Your task to perform on an android device: install app "Cash App" Image 0: 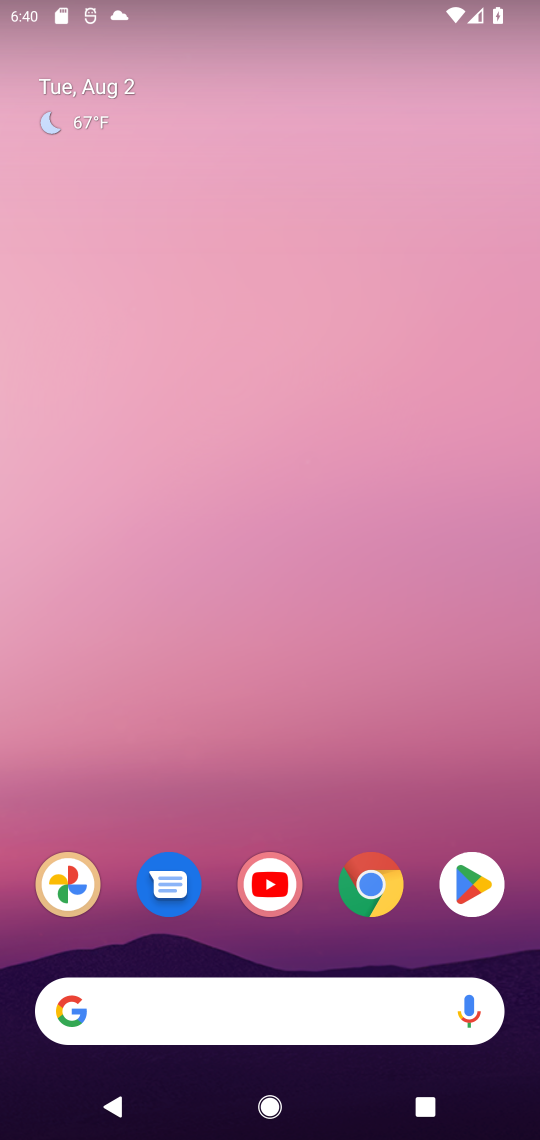
Step 0: press home button
Your task to perform on an android device: install app "Cash App" Image 1: 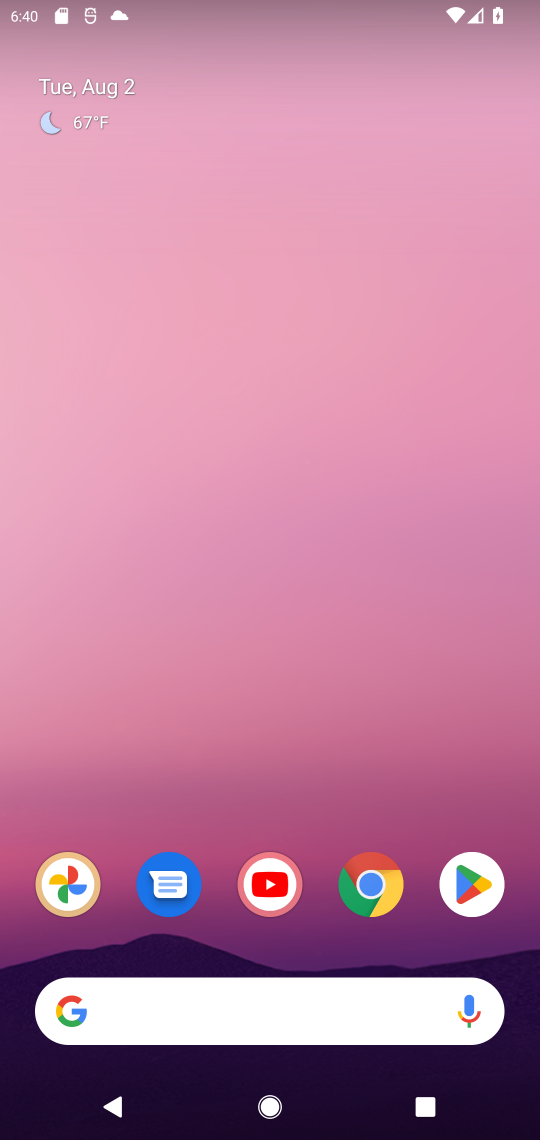
Step 1: click (479, 870)
Your task to perform on an android device: install app "Cash App" Image 2: 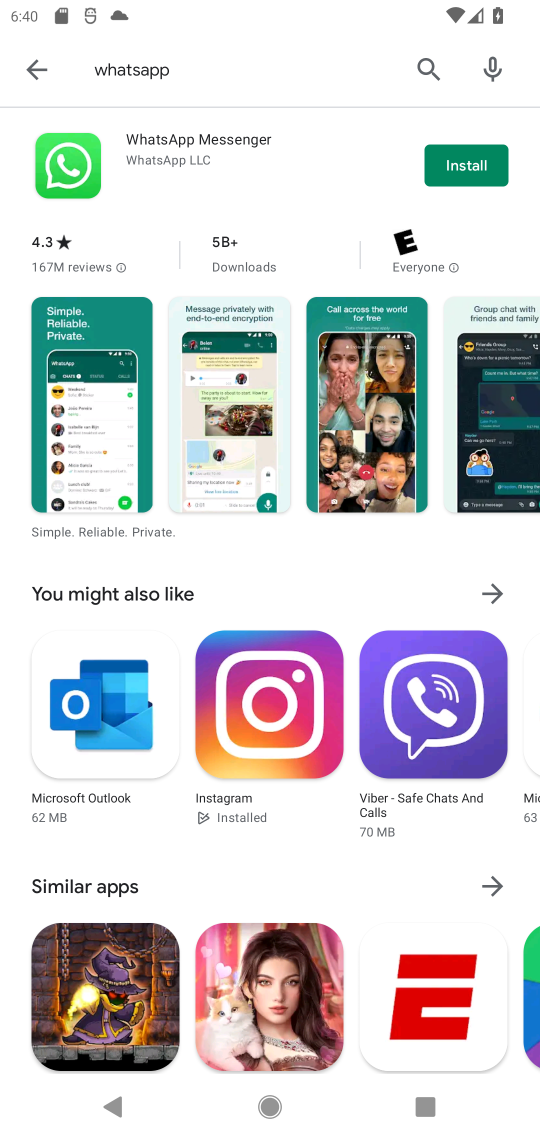
Step 2: click (418, 70)
Your task to perform on an android device: install app "Cash App" Image 3: 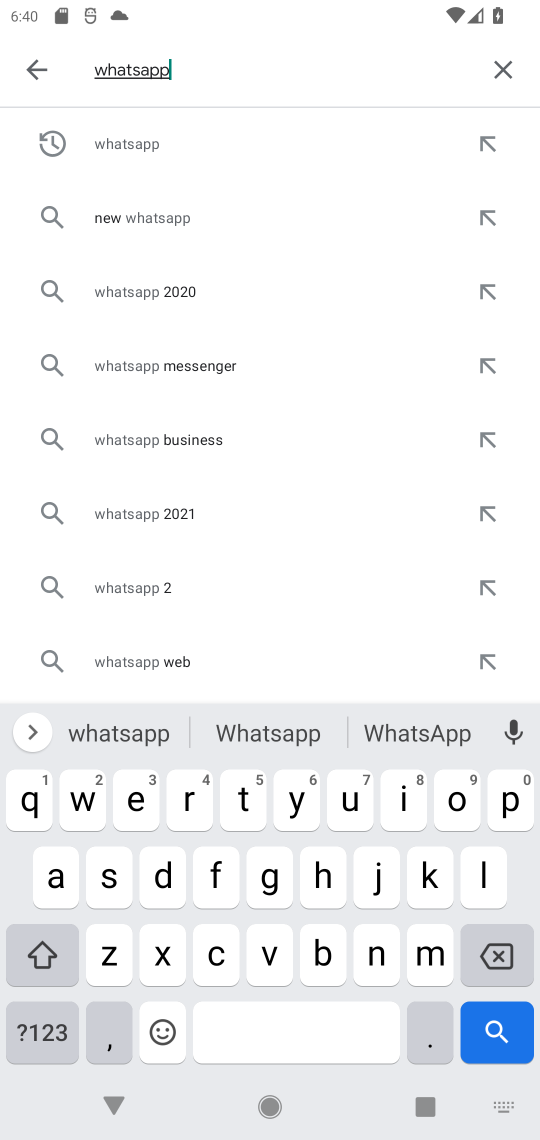
Step 3: click (494, 61)
Your task to perform on an android device: install app "Cash App" Image 4: 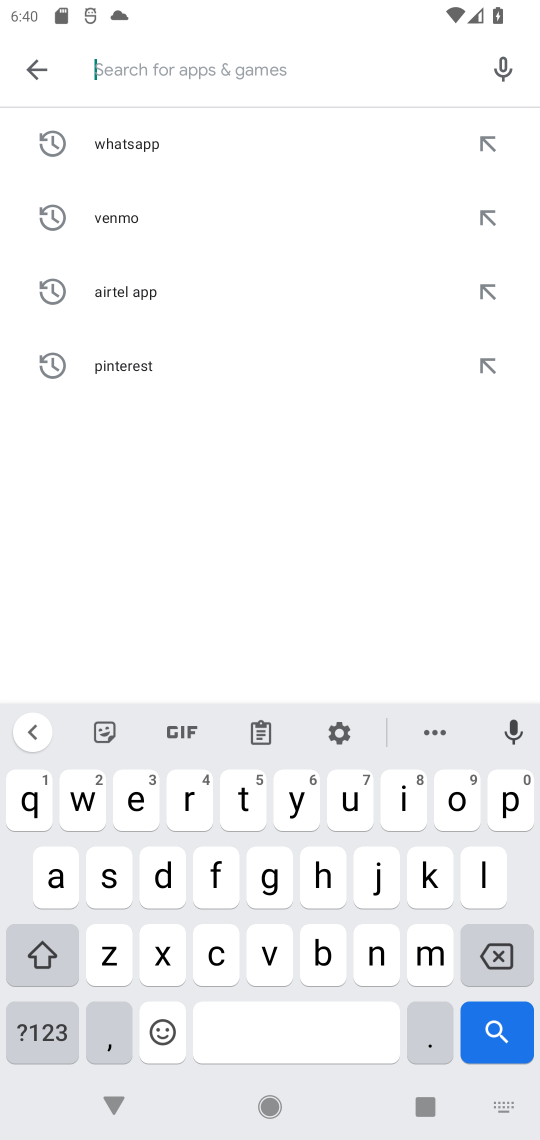
Step 4: click (208, 958)
Your task to perform on an android device: install app "Cash App" Image 5: 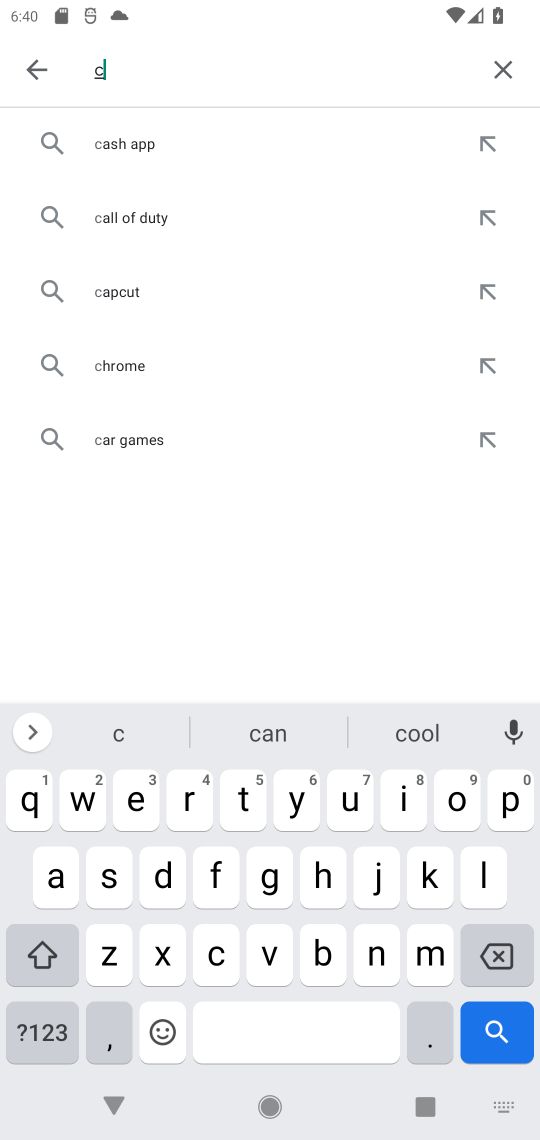
Step 5: click (49, 876)
Your task to perform on an android device: install app "Cash App" Image 6: 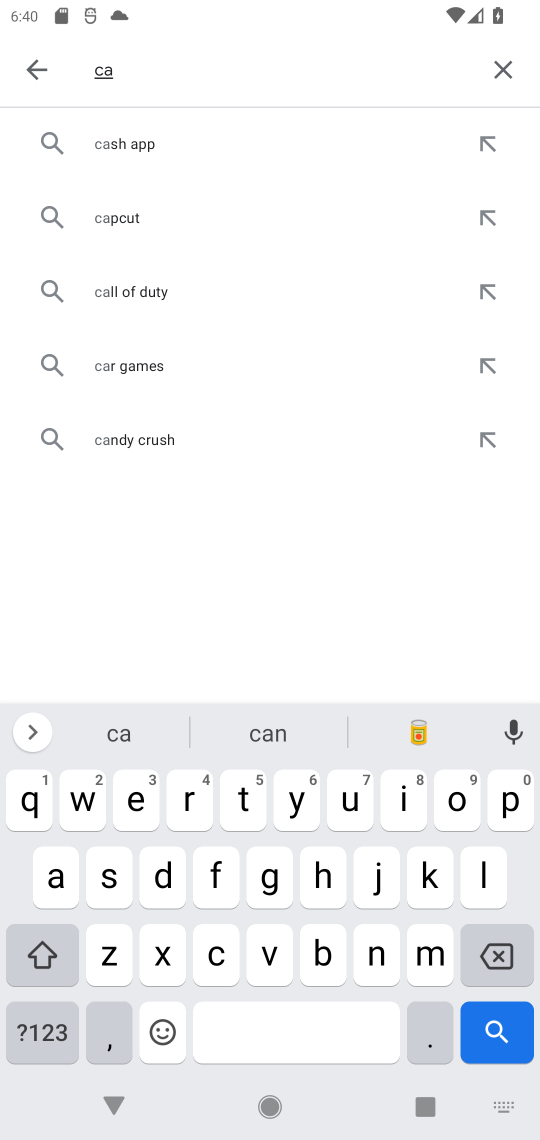
Step 6: click (103, 875)
Your task to perform on an android device: install app "Cash App" Image 7: 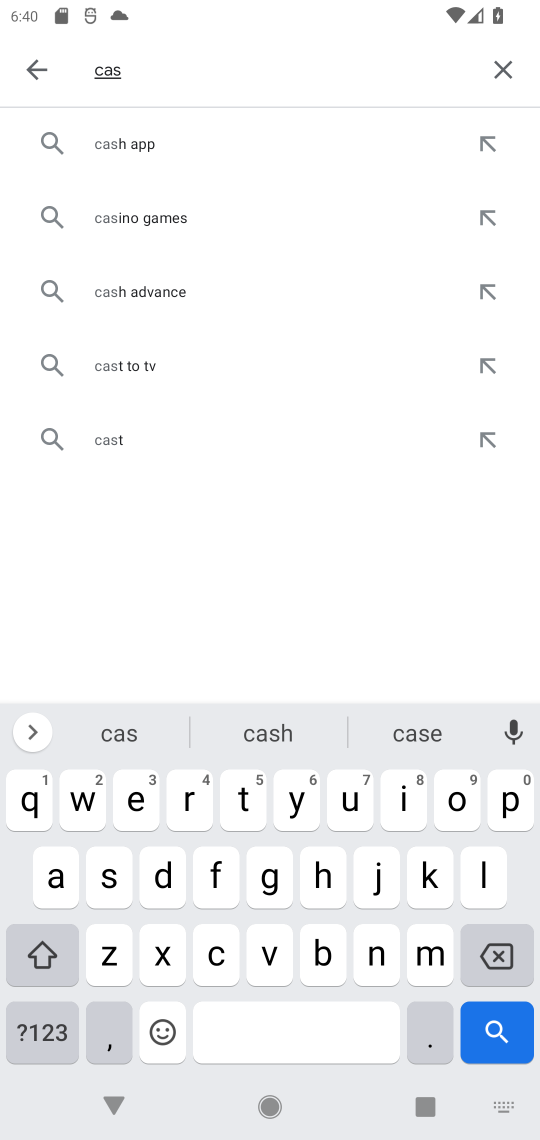
Step 7: click (139, 148)
Your task to perform on an android device: install app "Cash App" Image 8: 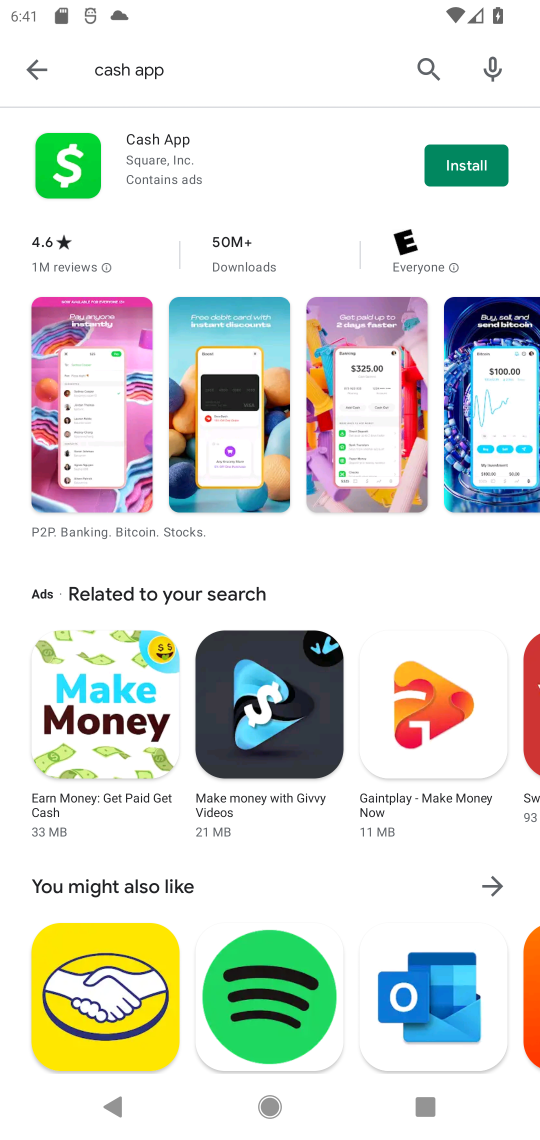
Step 8: click (466, 162)
Your task to perform on an android device: install app "Cash App" Image 9: 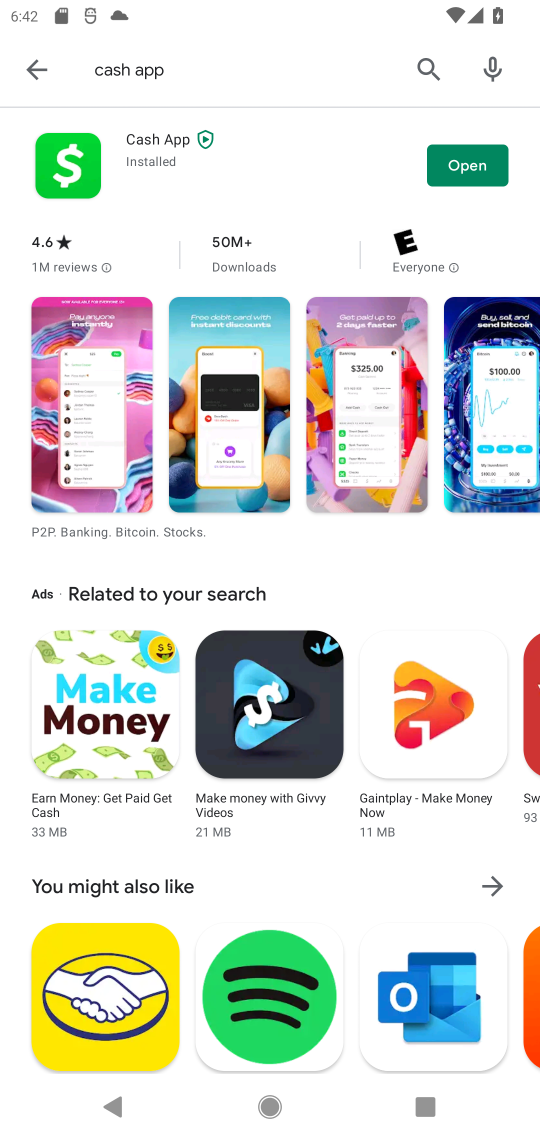
Step 9: task complete